Your task to perform on an android device: Open Chrome and go to the settings page Image 0: 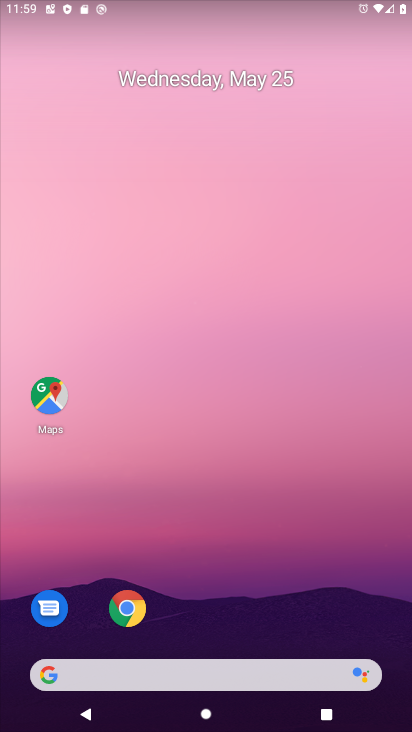
Step 0: click (132, 607)
Your task to perform on an android device: Open Chrome and go to the settings page Image 1: 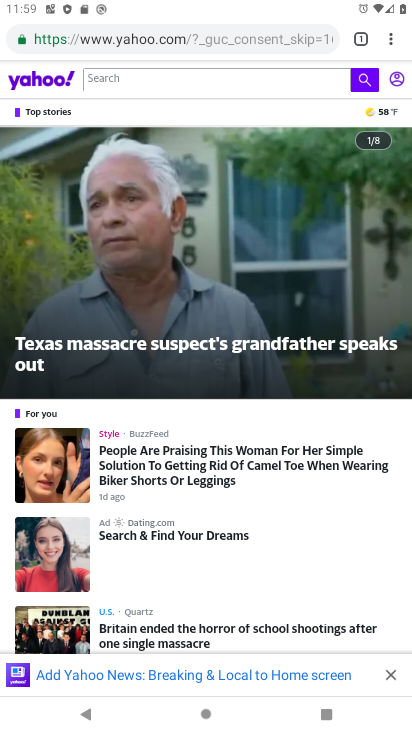
Step 1: click (391, 44)
Your task to perform on an android device: Open Chrome and go to the settings page Image 2: 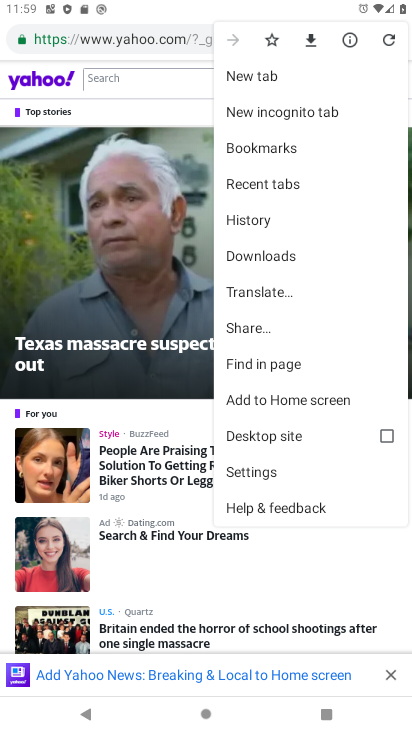
Step 2: click (258, 469)
Your task to perform on an android device: Open Chrome and go to the settings page Image 3: 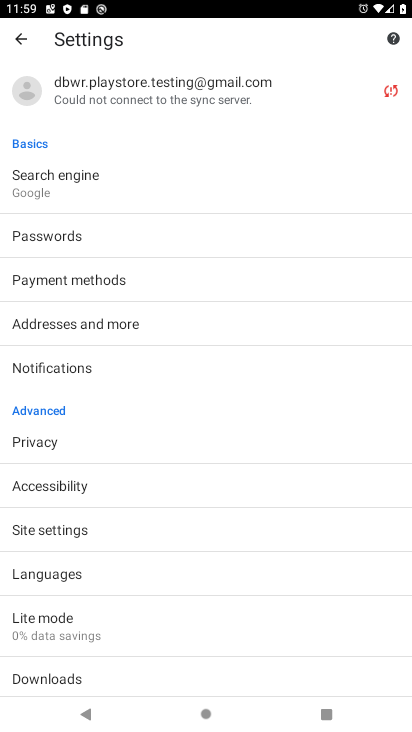
Step 3: task complete